Your task to perform on an android device: Open Reddit.com Image 0: 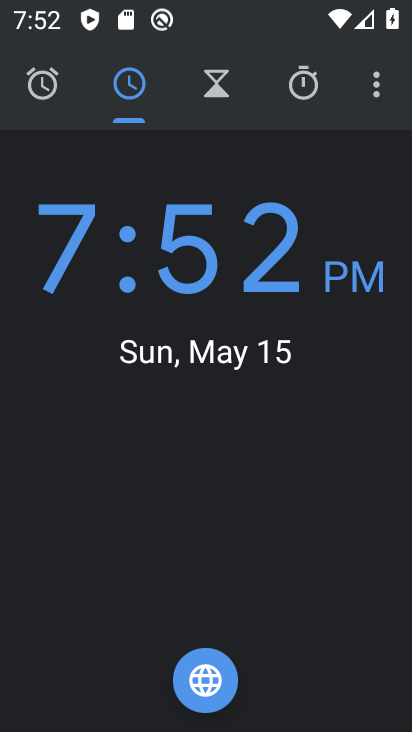
Step 0: press home button
Your task to perform on an android device: Open Reddit.com Image 1: 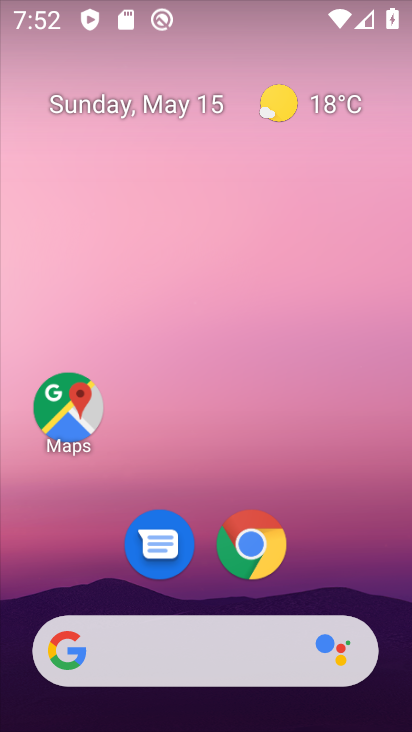
Step 1: click (239, 548)
Your task to perform on an android device: Open Reddit.com Image 2: 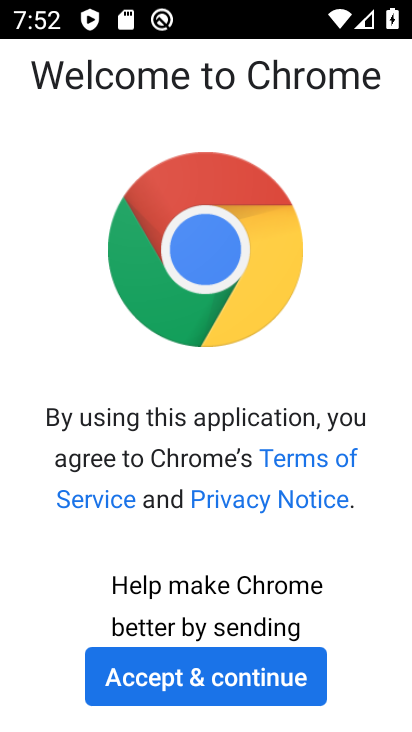
Step 2: click (233, 693)
Your task to perform on an android device: Open Reddit.com Image 3: 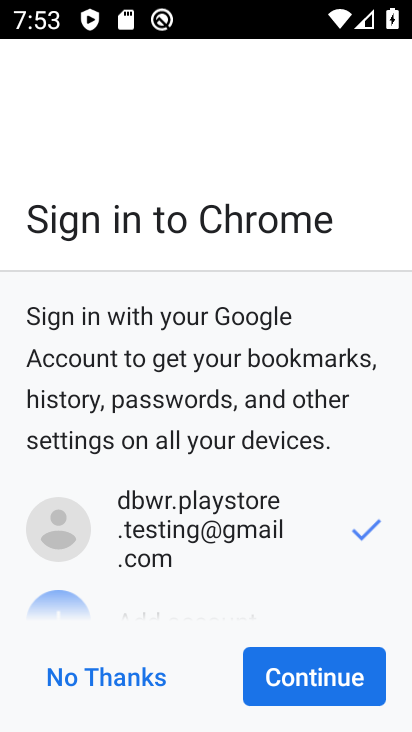
Step 3: click (260, 686)
Your task to perform on an android device: Open Reddit.com Image 4: 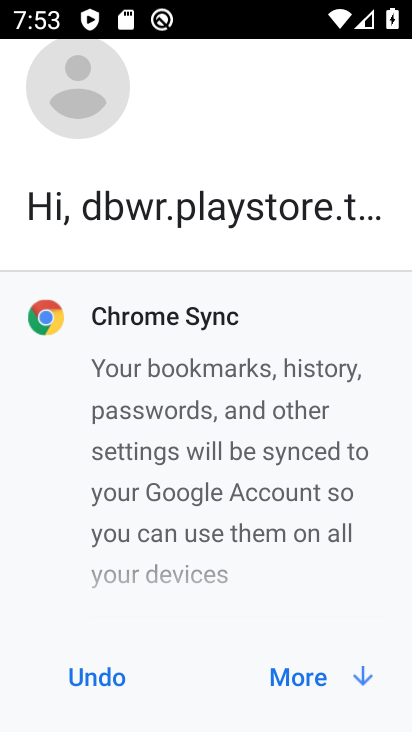
Step 4: click (285, 672)
Your task to perform on an android device: Open Reddit.com Image 5: 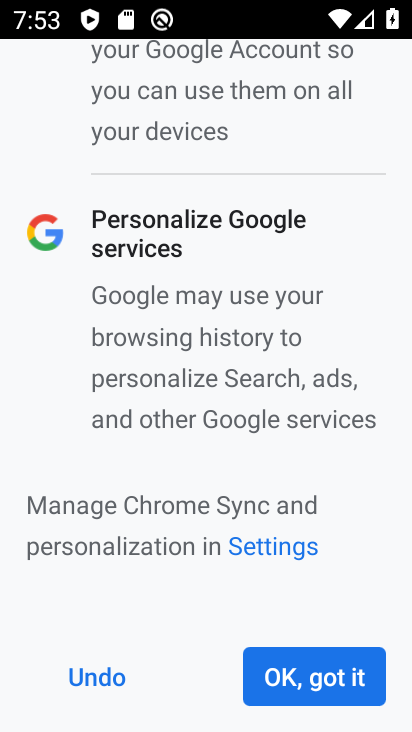
Step 5: click (272, 676)
Your task to perform on an android device: Open Reddit.com Image 6: 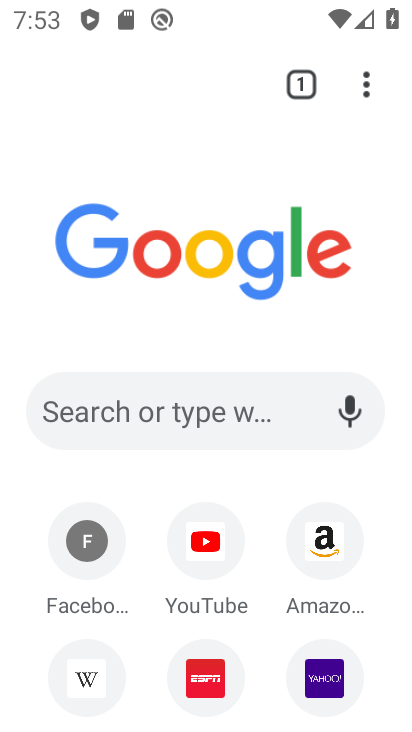
Step 6: click (229, 402)
Your task to perform on an android device: Open Reddit.com Image 7: 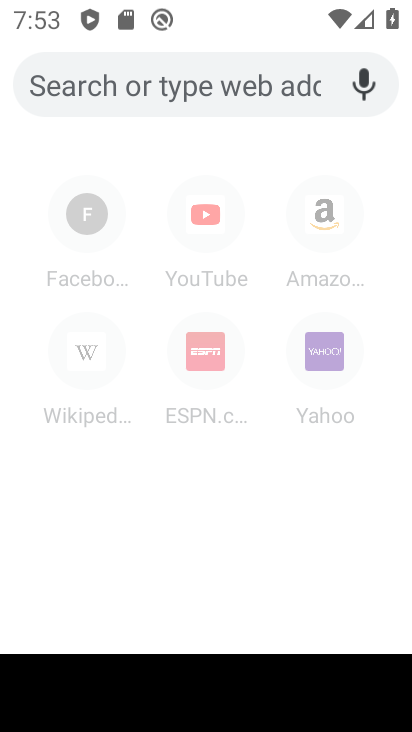
Step 7: type "reddit"
Your task to perform on an android device: Open Reddit.com Image 8: 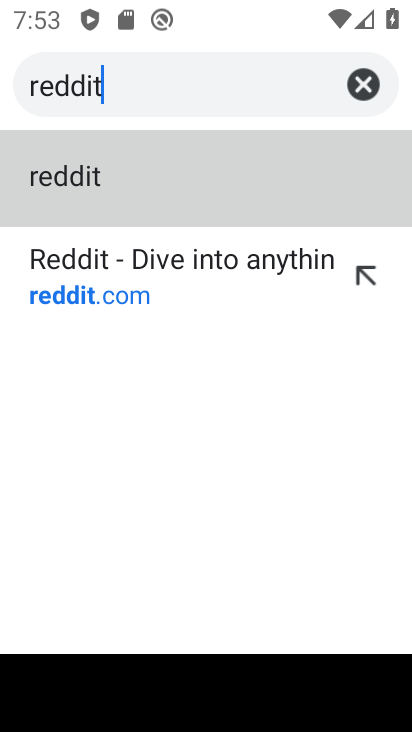
Step 8: click (60, 283)
Your task to perform on an android device: Open Reddit.com Image 9: 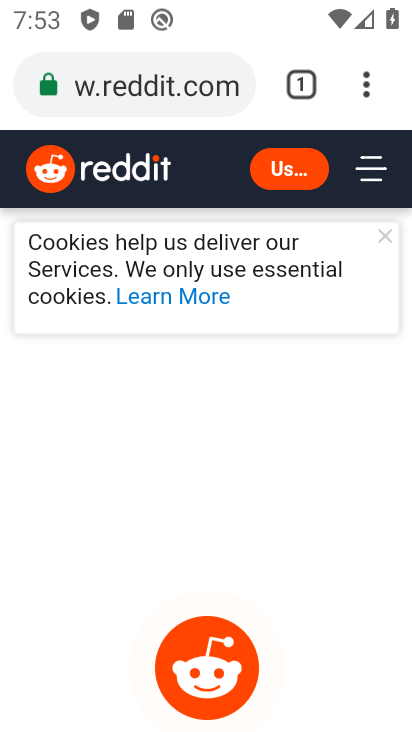
Step 9: task complete